Your task to perform on an android device: Open Yahoo.com Image 0: 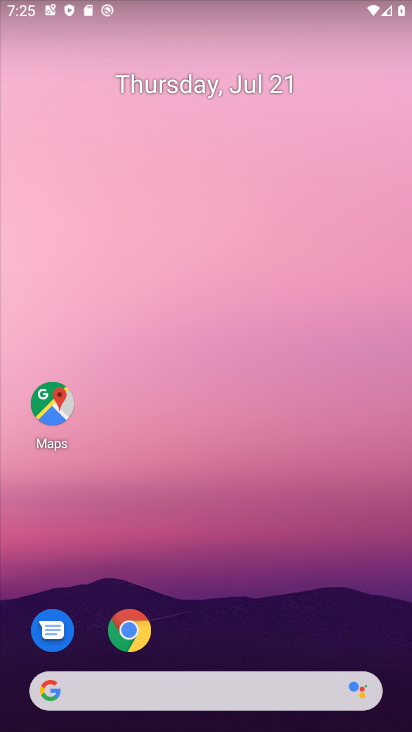
Step 0: click (115, 682)
Your task to perform on an android device: Open Yahoo.com Image 1: 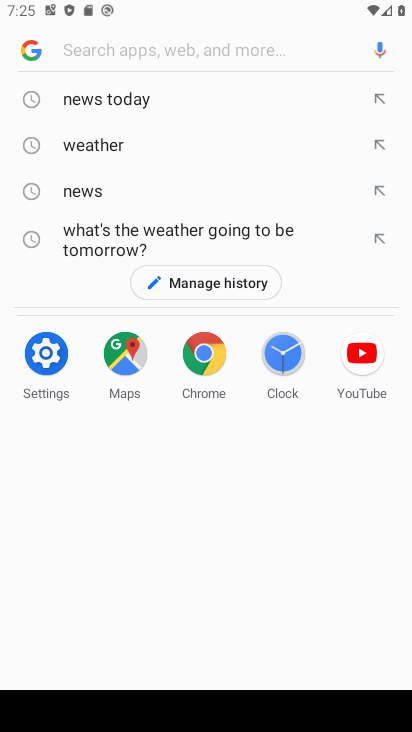
Step 1: type "yahoo.com"
Your task to perform on an android device: Open Yahoo.com Image 2: 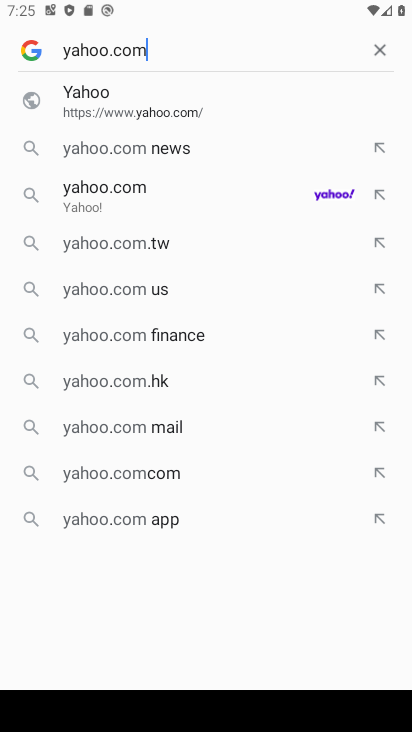
Step 2: click (175, 107)
Your task to perform on an android device: Open Yahoo.com Image 3: 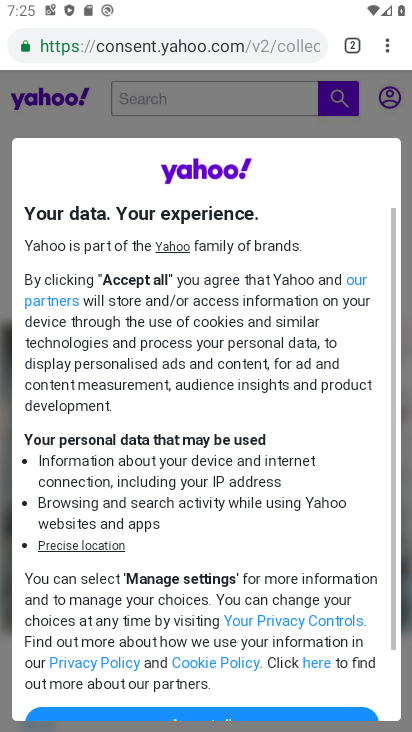
Step 3: task complete